Your task to perform on an android device: Check the weather Image 0: 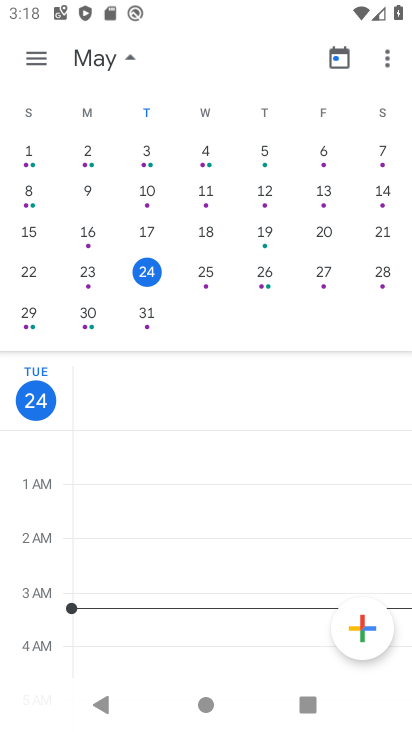
Step 0: press home button
Your task to perform on an android device: Check the weather Image 1: 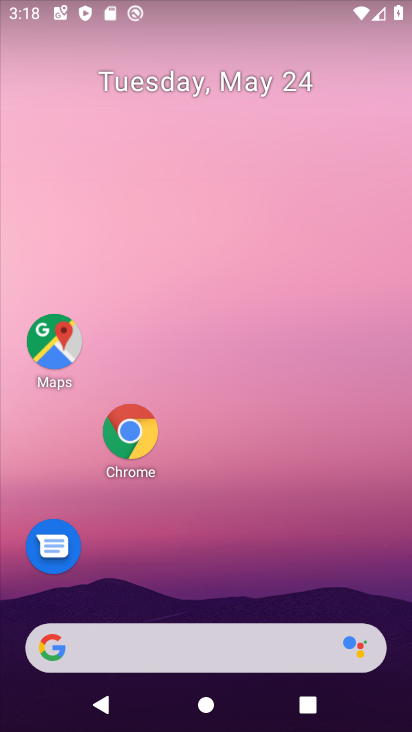
Step 1: drag from (207, 612) to (339, 21)
Your task to perform on an android device: Check the weather Image 2: 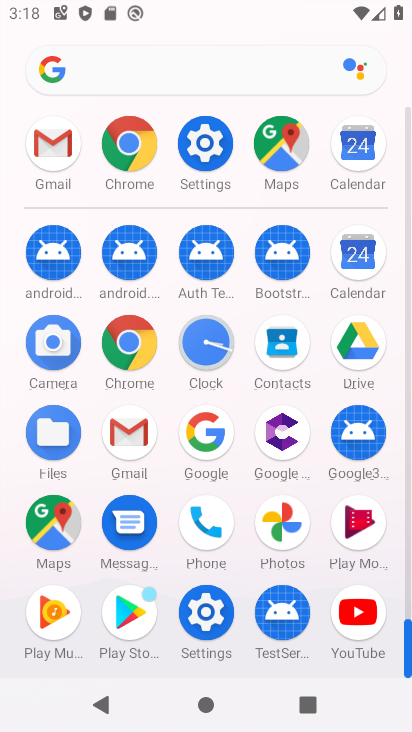
Step 2: click (116, 62)
Your task to perform on an android device: Check the weather Image 3: 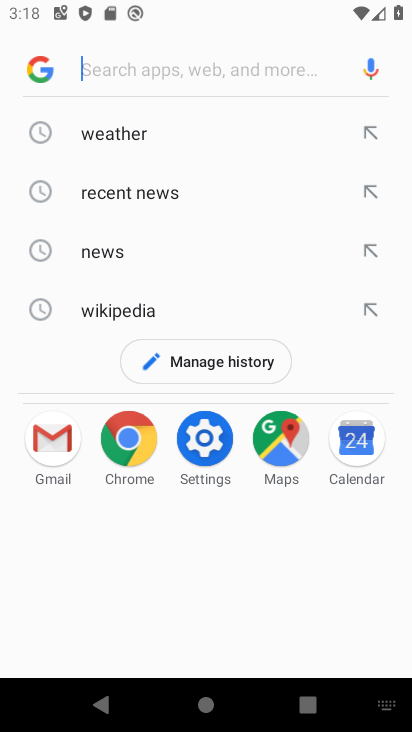
Step 3: click (125, 137)
Your task to perform on an android device: Check the weather Image 4: 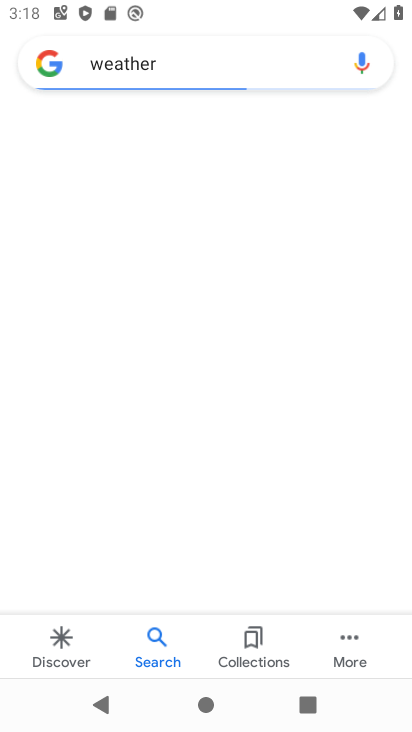
Step 4: drag from (283, 458) to (321, 40)
Your task to perform on an android device: Check the weather Image 5: 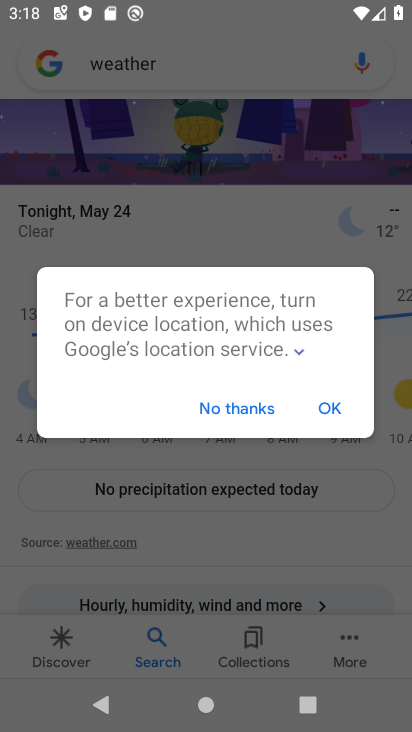
Step 5: click (244, 413)
Your task to perform on an android device: Check the weather Image 6: 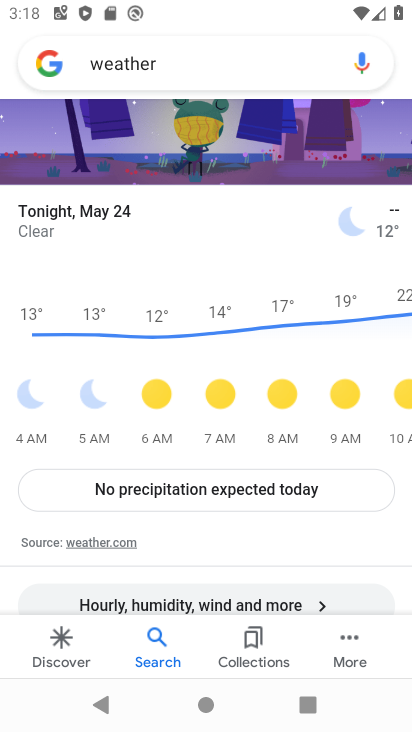
Step 6: task complete